Your task to perform on an android device: Open maps Image 0: 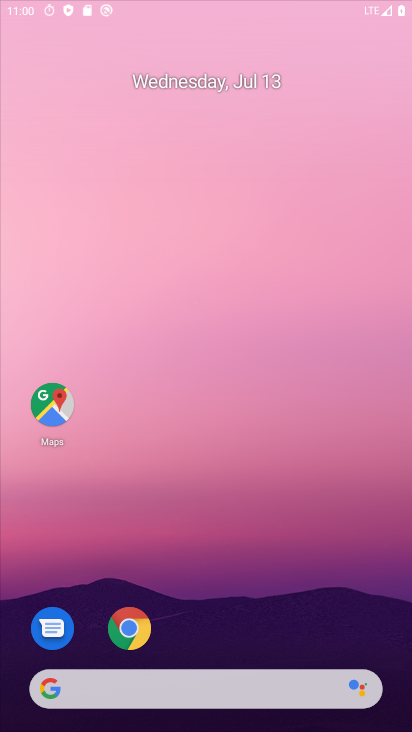
Step 0: drag from (262, 251) to (270, 167)
Your task to perform on an android device: Open maps Image 1: 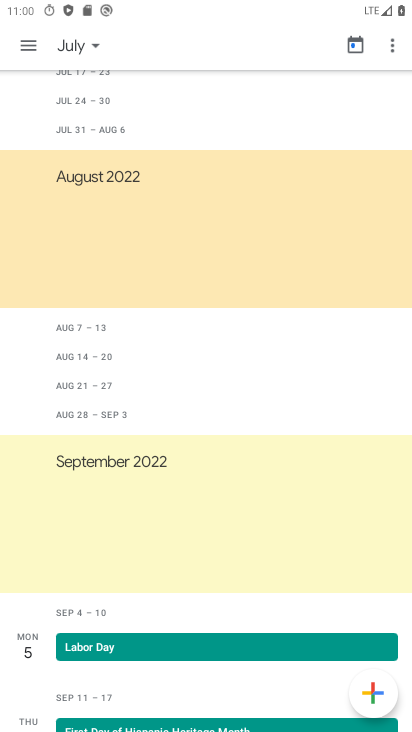
Step 1: press home button
Your task to perform on an android device: Open maps Image 2: 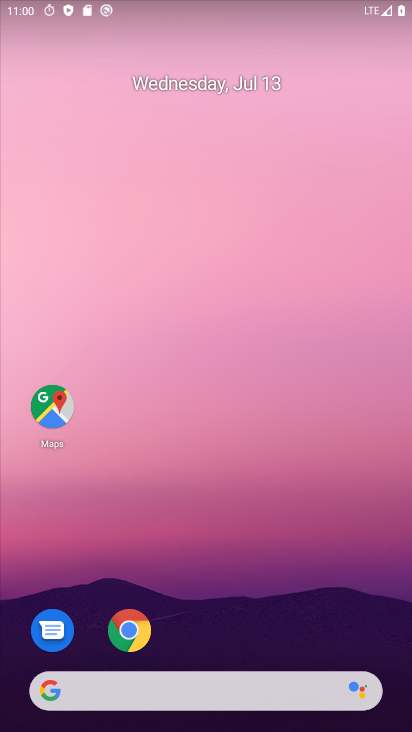
Step 2: drag from (227, 662) to (266, 123)
Your task to perform on an android device: Open maps Image 3: 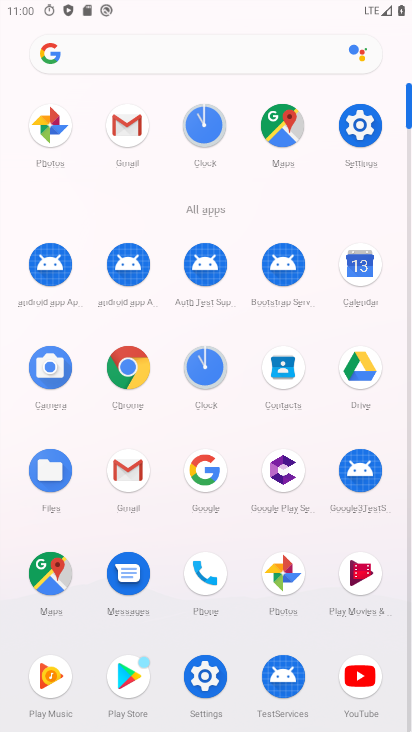
Step 3: click (66, 593)
Your task to perform on an android device: Open maps Image 4: 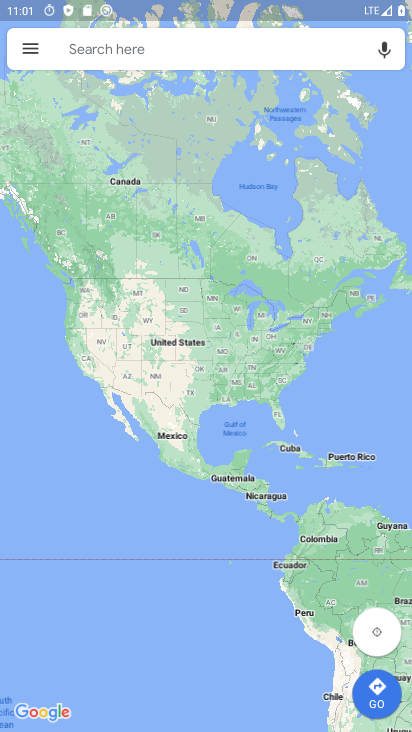
Step 4: task complete